Your task to perform on an android device: Go to CNN.com Image 0: 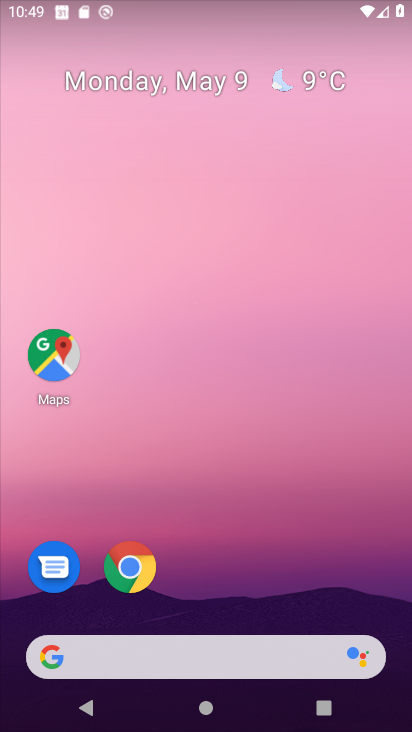
Step 0: drag from (223, 611) to (240, 1)
Your task to perform on an android device: Go to CNN.com Image 1: 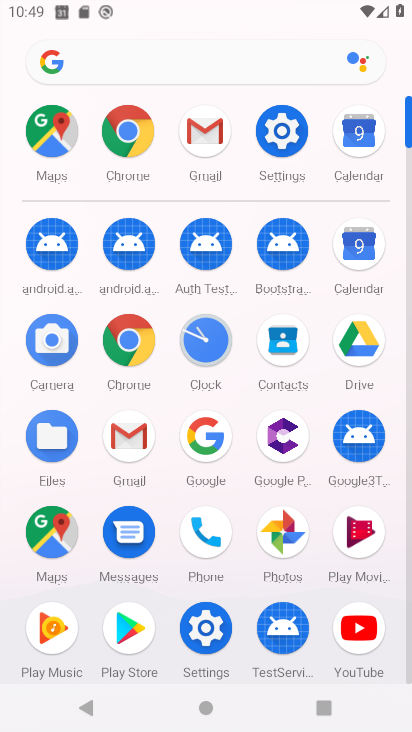
Step 1: click (124, 335)
Your task to perform on an android device: Go to CNN.com Image 2: 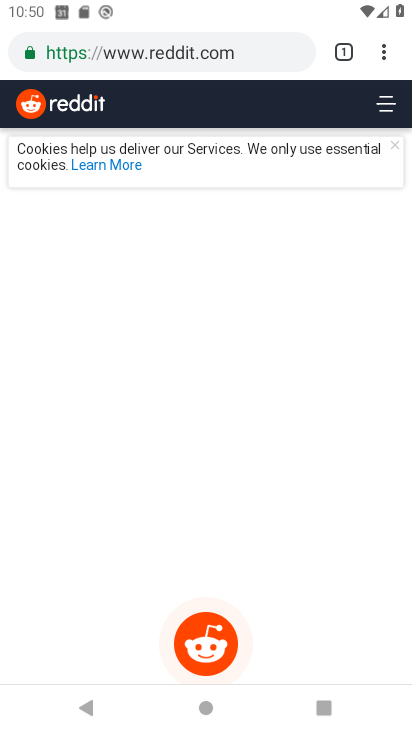
Step 2: click (351, 51)
Your task to perform on an android device: Go to CNN.com Image 3: 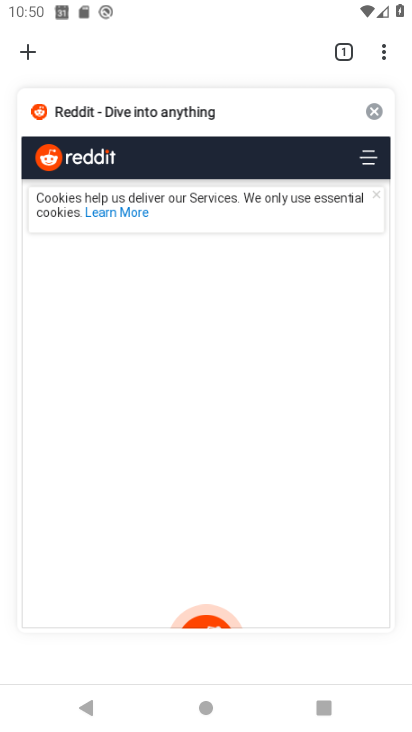
Step 3: click (32, 57)
Your task to perform on an android device: Go to CNN.com Image 4: 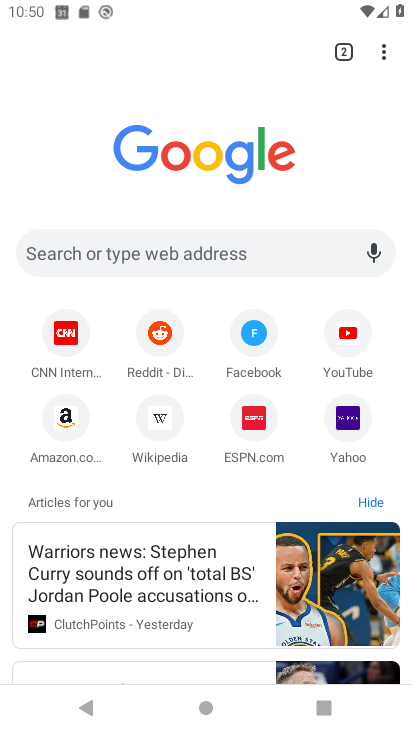
Step 4: click (60, 330)
Your task to perform on an android device: Go to CNN.com Image 5: 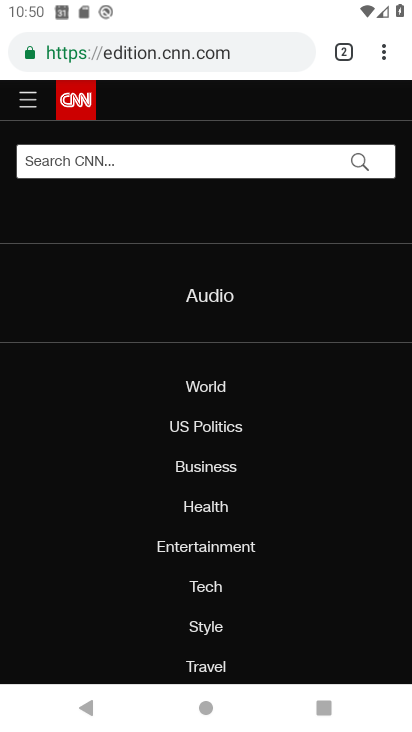
Step 5: task complete